Your task to perform on an android device: toggle translation in the chrome app Image 0: 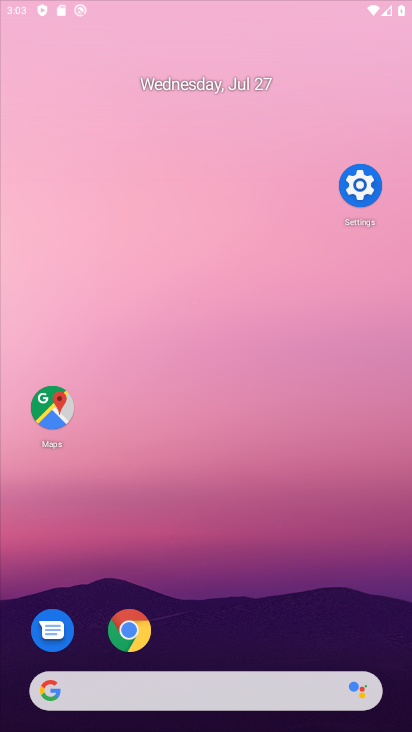
Step 0: press home button
Your task to perform on an android device: toggle translation in the chrome app Image 1: 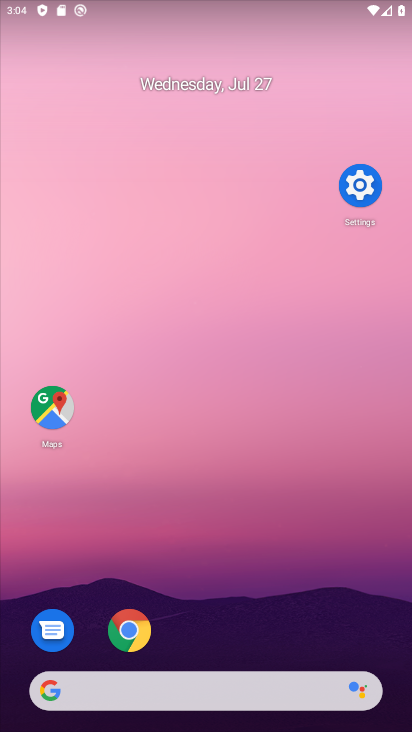
Step 1: drag from (237, 581) to (317, 178)
Your task to perform on an android device: toggle translation in the chrome app Image 2: 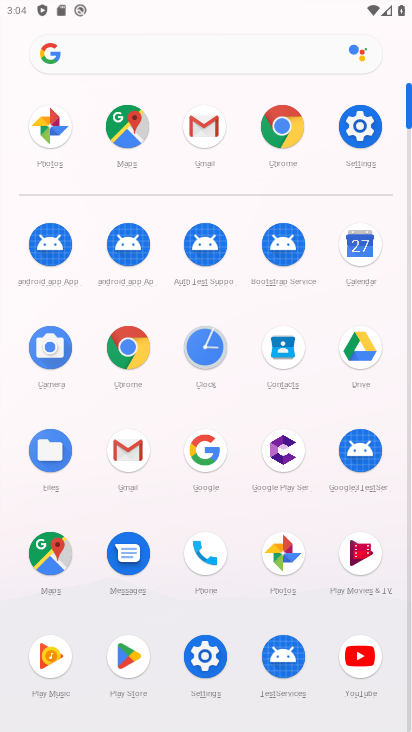
Step 2: click (282, 128)
Your task to perform on an android device: toggle translation in the chrome app Image 3: 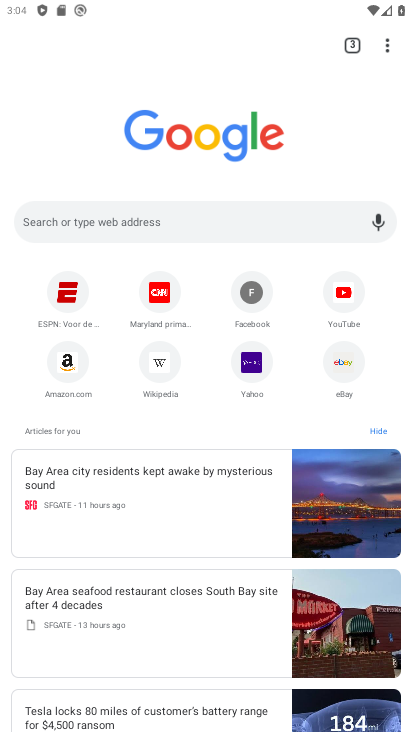
Step 3: drag from (388, 44) to (218, 434)
Your task to perform on an android device: toggle translation in the chrome app Image 4: 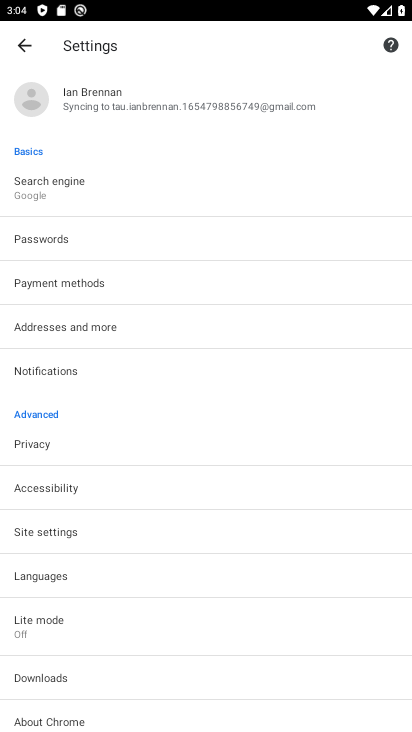
Step 4: click (41, 579)
Your task to perform on an android device: toggle translation in the chrome app Image 5: 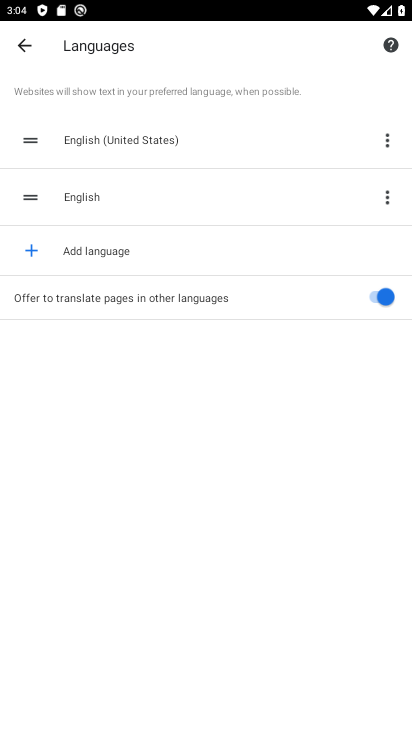
Step 5: click (380, 299)
Your task to perform on an android device: toggle translation in the chrome app Image 6: 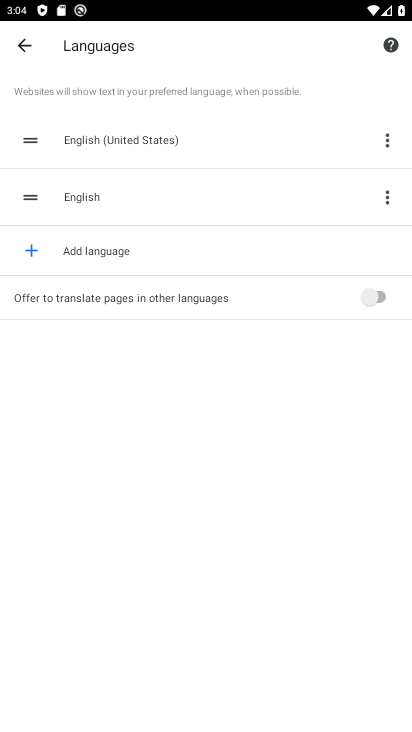
Step 6: task complete